Your task to perform on an android device: Open the phone app and click the voicemail tab. Image 0: 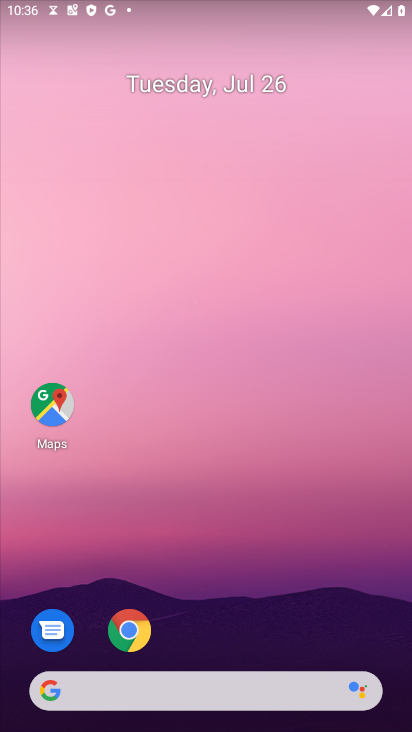
Step 0: drag from (160, 690) to (245, 72)
Your task to perform on an android device: Open the phone app and click the voicemail tab. Image 1: 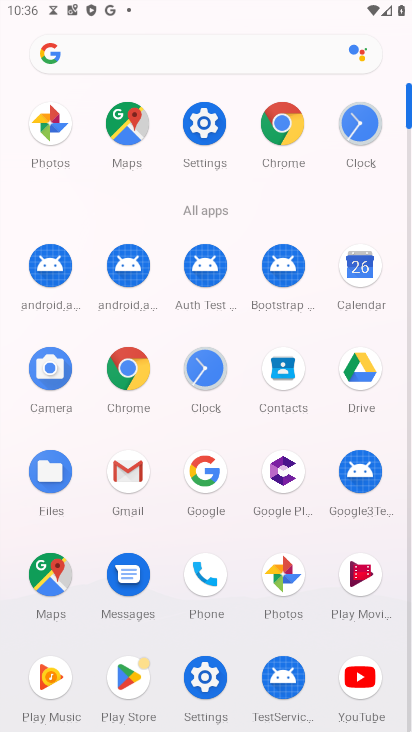
Step 1: click (201, 577)
Your task to perform on an android device: Open the phone app and click the voicemail tab. Image 2: 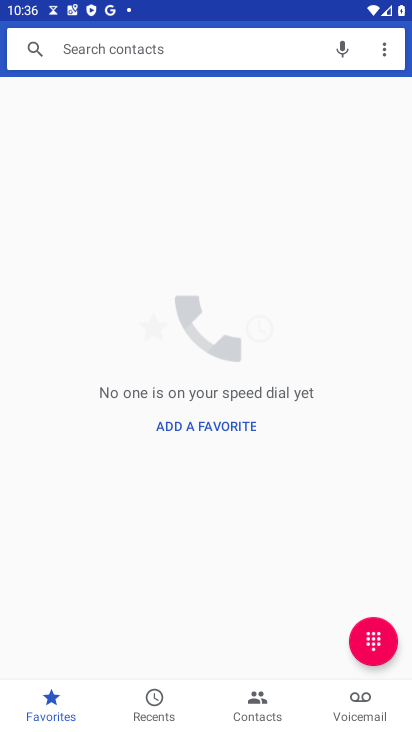
Step 2: click (358, 698)
Your task to perform on an android device: Open the phone app and click the voicemail tab. Image 3: 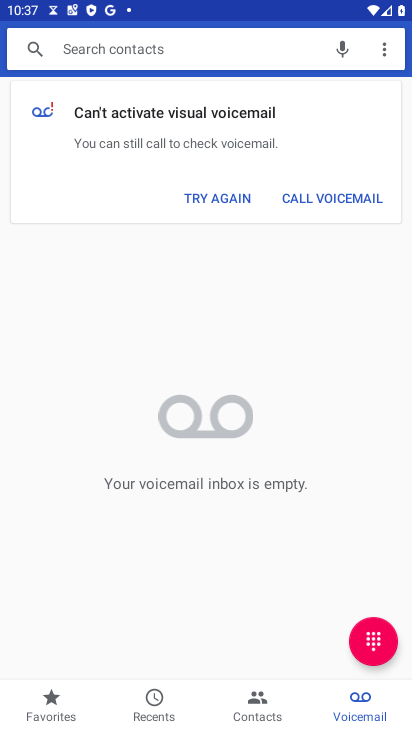
Step 3: task complete